Your task to perform on an android device: change the upload size in google photos Image 0: 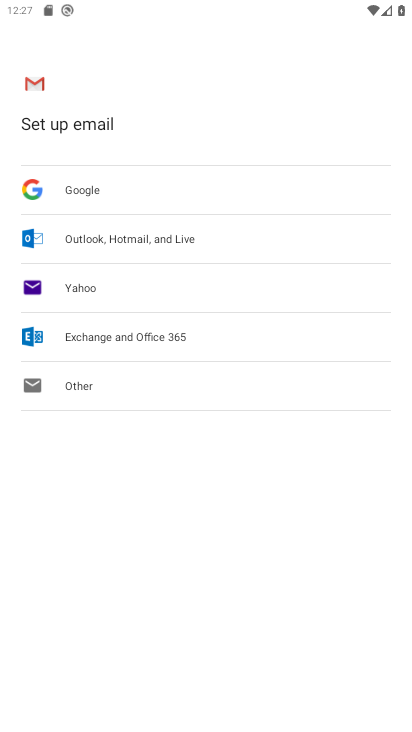
Step 0: press home button
Your task to perform on an android device: change the upload size in google photos Image 1: 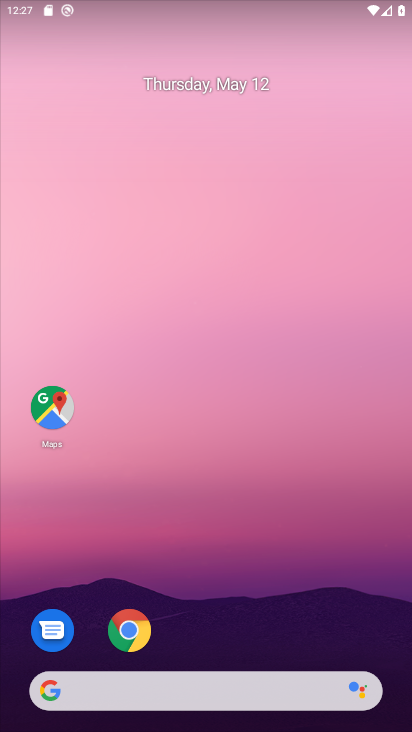
Step 1: drag from (287, 636) to (320, 79)
Your task to perform on an android device: change the upload size in google photos Image 2: 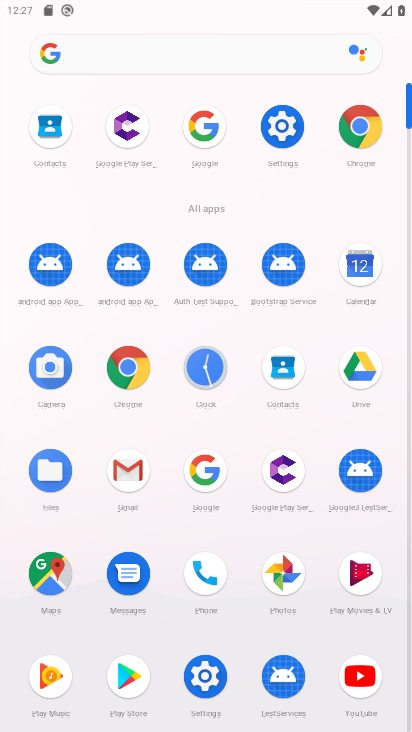
Step 2: click (287, 569)
Your task to perform on an android device: change the upload size in google photos Image 3: 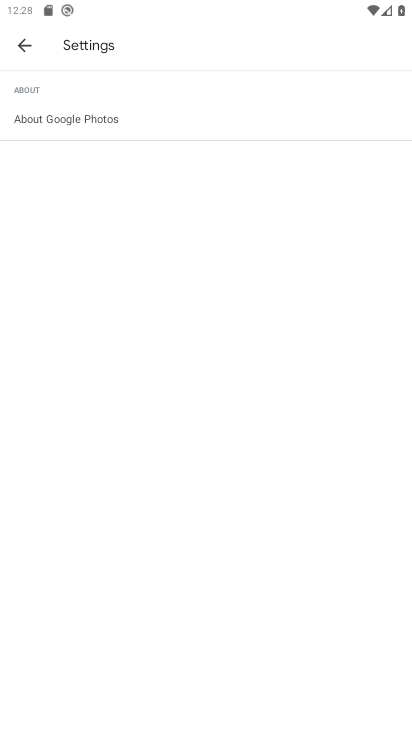
Step 3: click (30, 38)
Your task to perform on an android device: change the upload size in google photos Image 4: 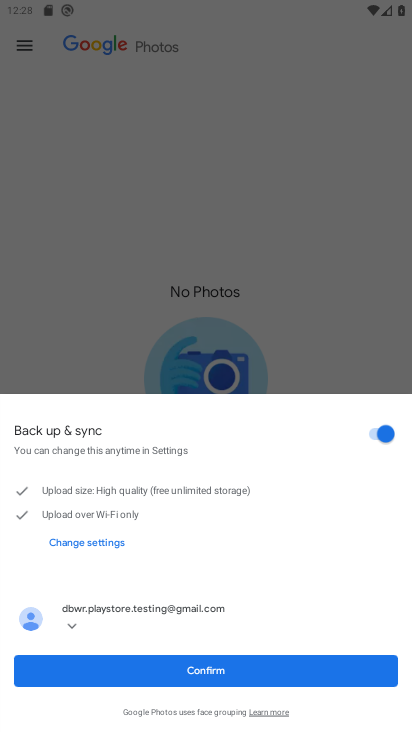
Step 4: click (247, 667)
Your task to perform on an android device: change the upload size in google photos Image 5: 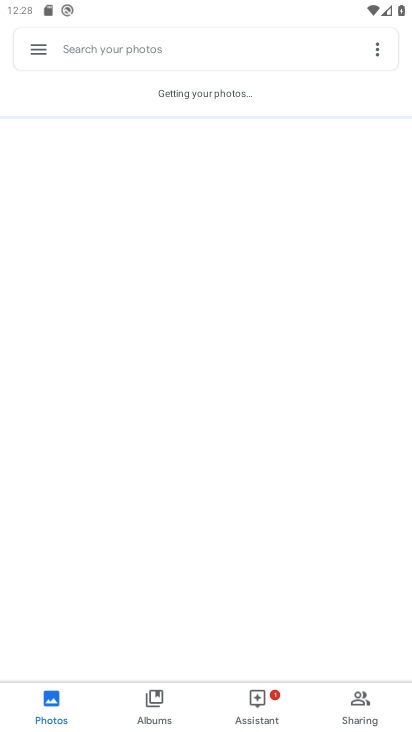
Step 5: click (38, 51)
Your task to perform on an android device: change the upload size in google photos Image 6: 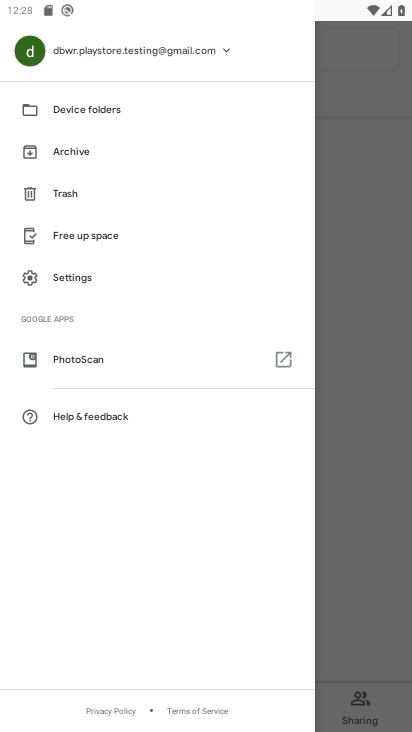
Step 6: click (83, 271)
Your task to perform on an android device: change the upload size in google photos Image 7: 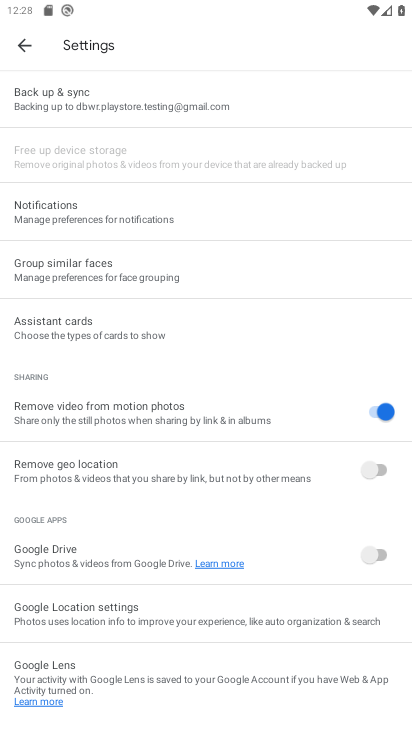
Step 7: click (52, 92)
Your task to perform on an android device: change the upload size in google photos Image 8: 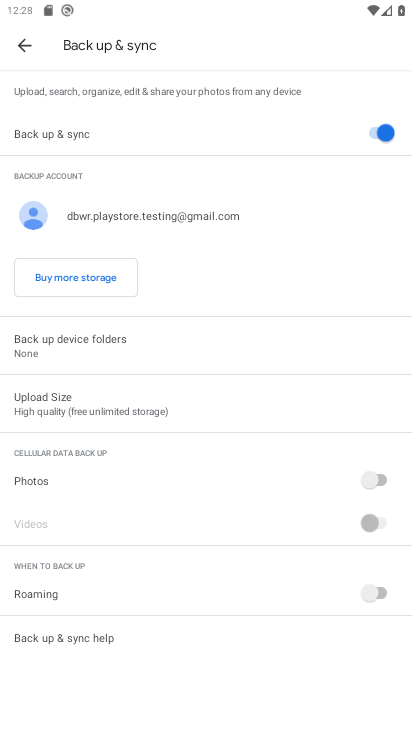
Step 8: click (90, 407)
Your task to perform on an android device: change the upload size in google photos Image 9: 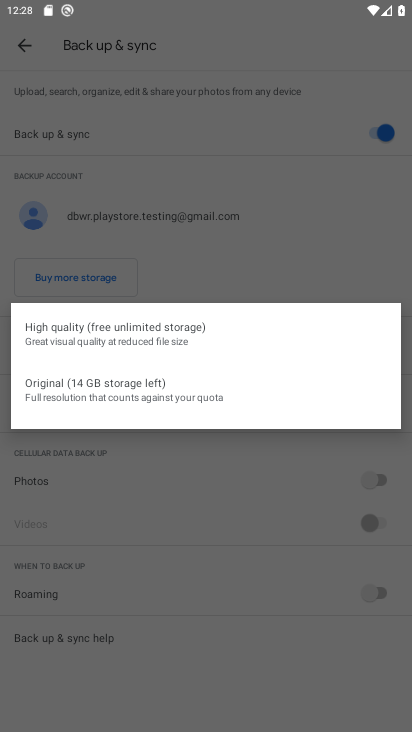
Step 9: click (373, 195)
Your task to perform on an android device: change the upload size in google photos Image 10: 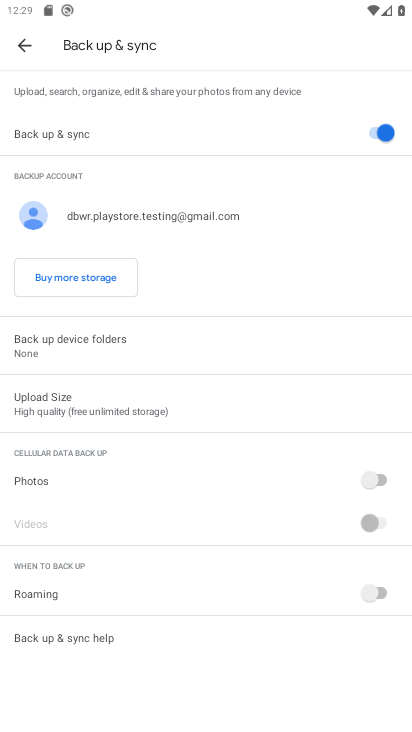
Step 10: click (140, 408)
Your task to perform on an android device: change the upload size in google photos Image 11: 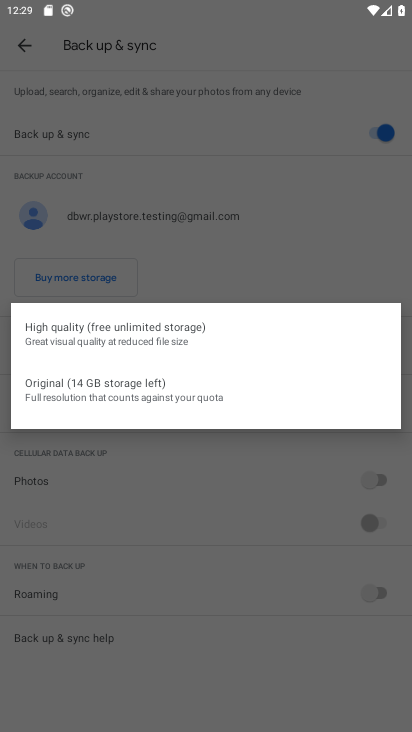
Step 11: click (110, 389)
Your task to perform on an android device: change the upload size in google photos Image 12: 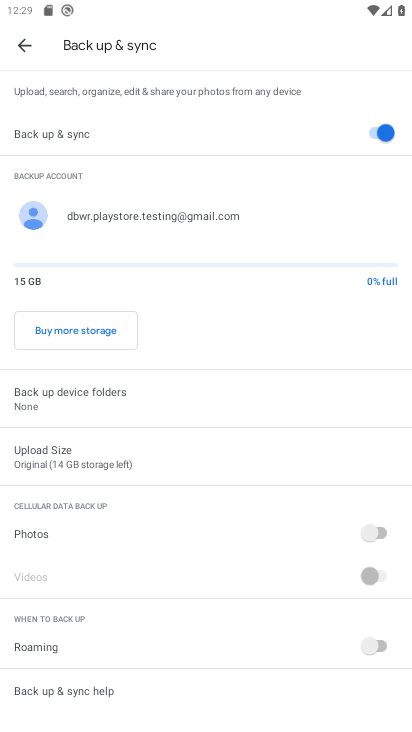
Step 12: task complete